Your task to perform on an android device: check the backup settings in the google photos Image 0: 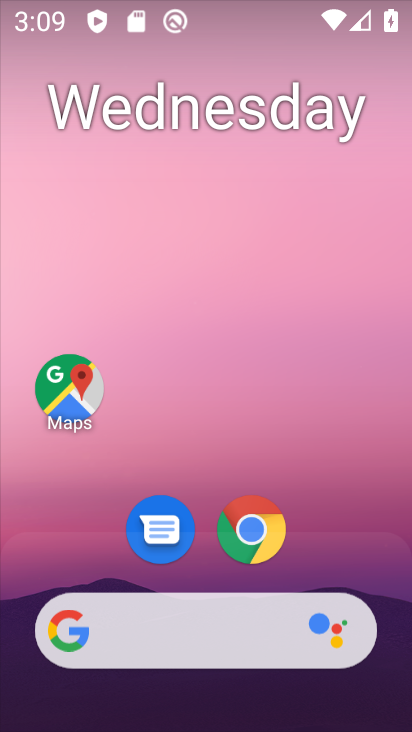
Step 0: drag from (159, 606) to (282, 226)
Your task to perform on an android device: check the backup settings in the google photos Image 1: 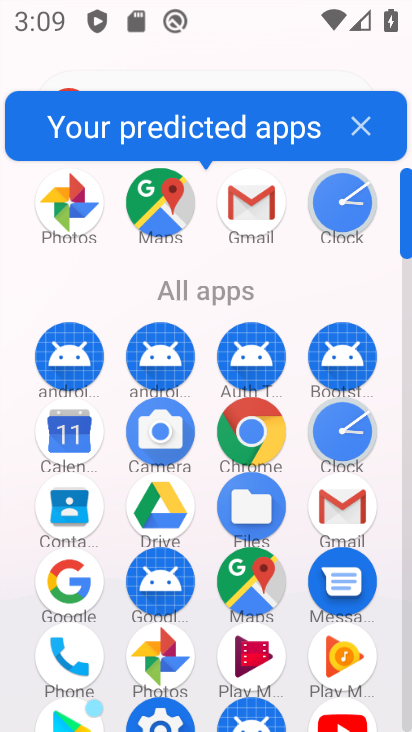
Step 1: click (153, 646)
Your task to perform on an android device: check the backup settings in the google photos Image 2: 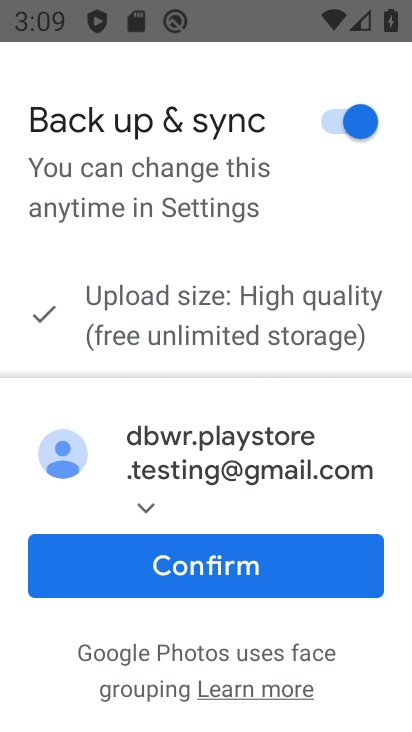
Step 2: click (261, 572)
Your task to perform on an android device: check the backup settings in the google photos Image 3: 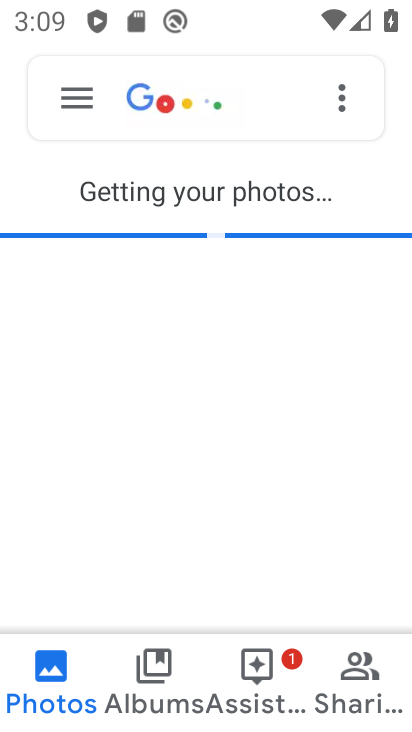
Step 3: click (75, 103)
Your task to perform on an android device: check the backup settings in the google photos Image 4: 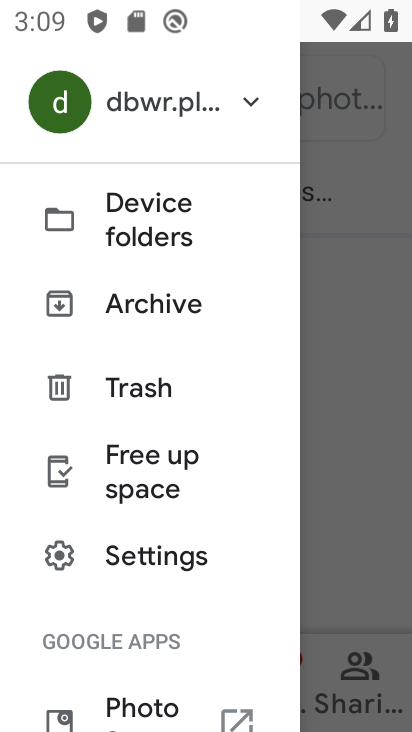
Step 4: click (181, 577)
Your task to perform on an android device: check the backup settings in the google photos Image 5: 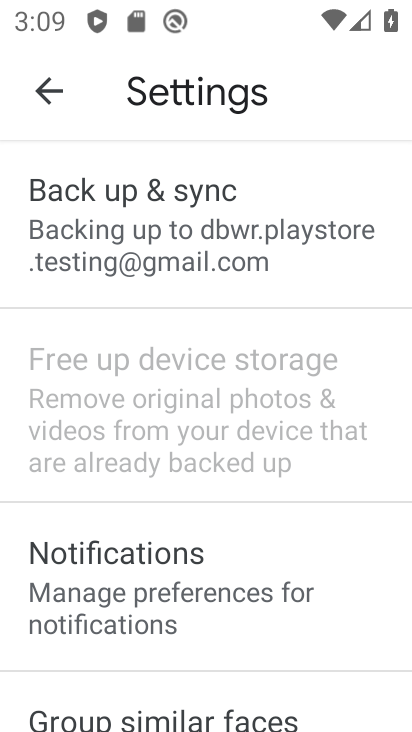
Step 5: click (235, 263)
Your task to perform on an android device: check the backup settings in the google photos Image 6: 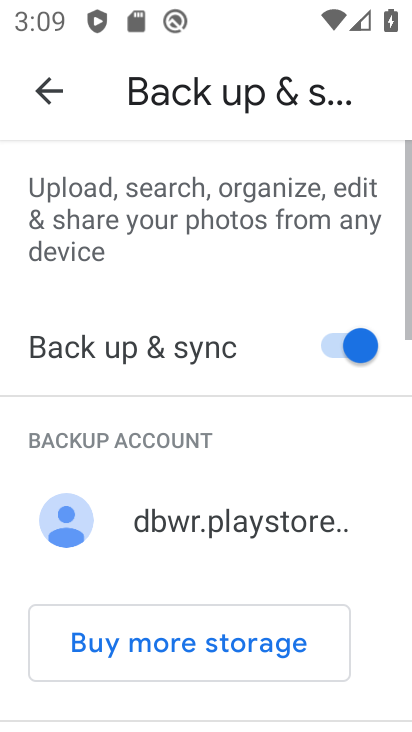
Step 6: task complete